Your task to perform on an android device: turn off notifications in google photos Image 0: 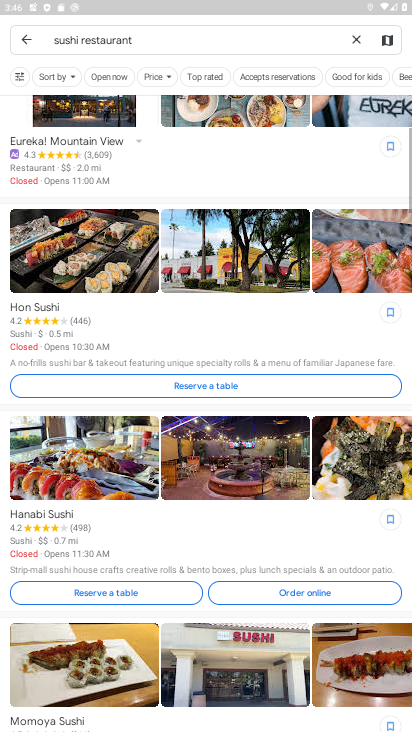
Step 0: drag from (197, 19) to (232, 497)
Your task to perform on an android device: turn off notifications in google photos Image 1: 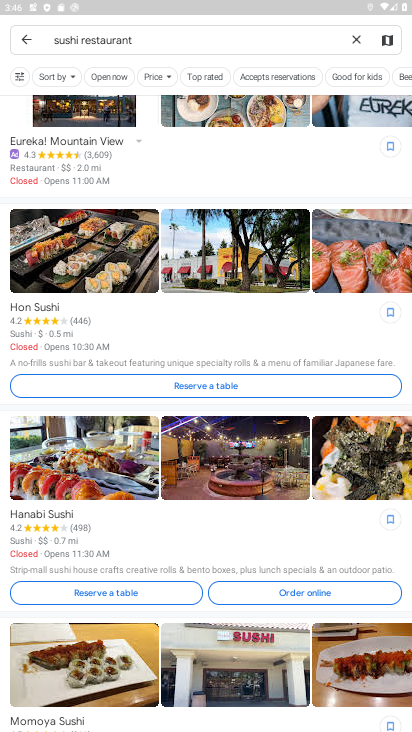
Step 1: press back button
Your task to perform on an android device: turn off notifications in google photos Image 2: 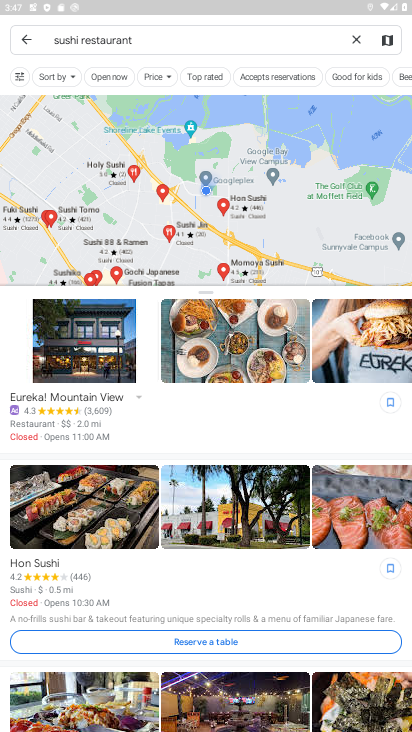
Step 2: press home button
Your task to perform on an android device: turn off notifications in google photos Image 3: 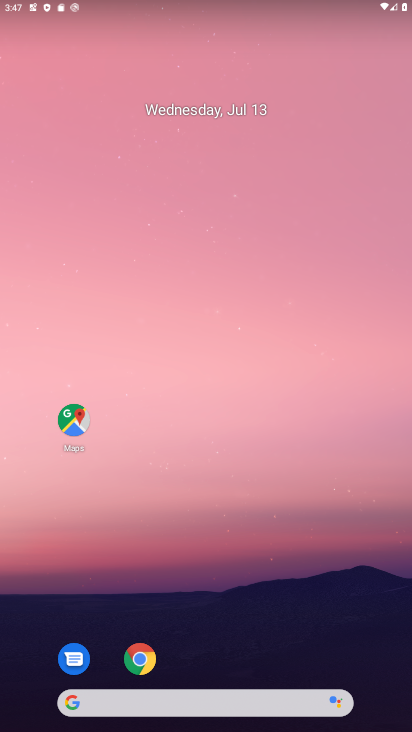
Step 3: drag from (239, 668) to (224, 55)
Your task to perform on an android device: turn off notifications in google photos Image 4: 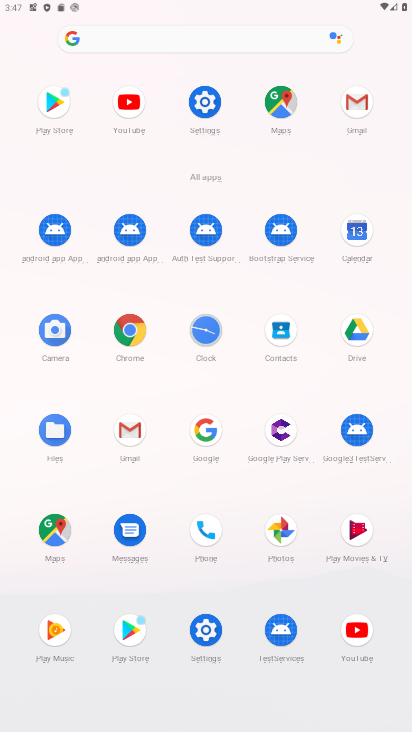
Step 4: click (276, 523)
Your task to perform on an android device: turn off notifications in google photos Image 5: 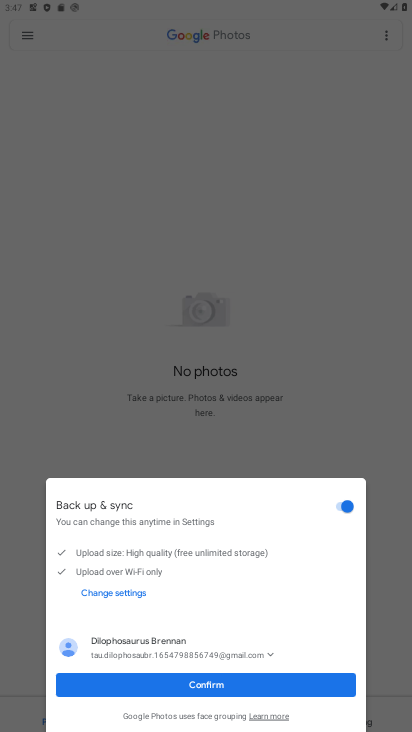
Step 5: click (206, 681)
Your task to perform on an android device: turn off notifications in google photos Image 6: 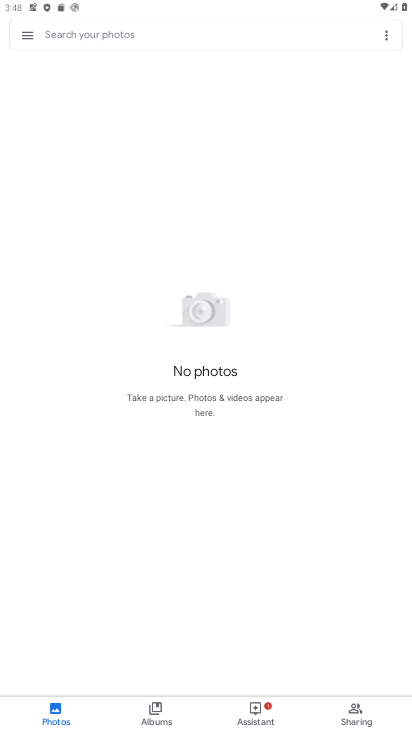
Step 6: click (29, 38)
Your task to perform on an android device: turn off notifications in google photos Image 7: 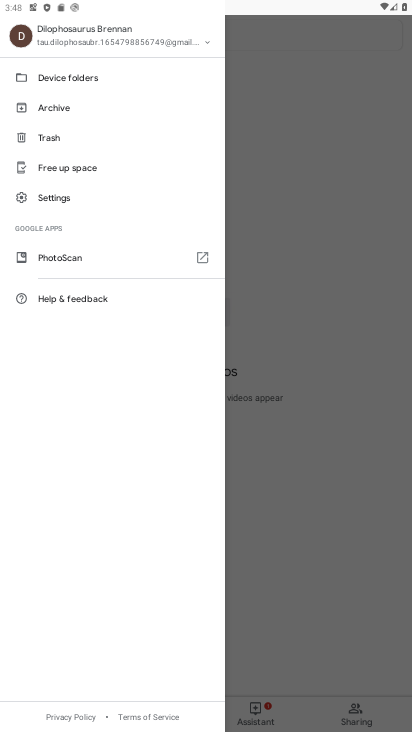
Step 7: click (65, 198)
Your task to perform on an android device: turn off notifications in google photos Image 8: 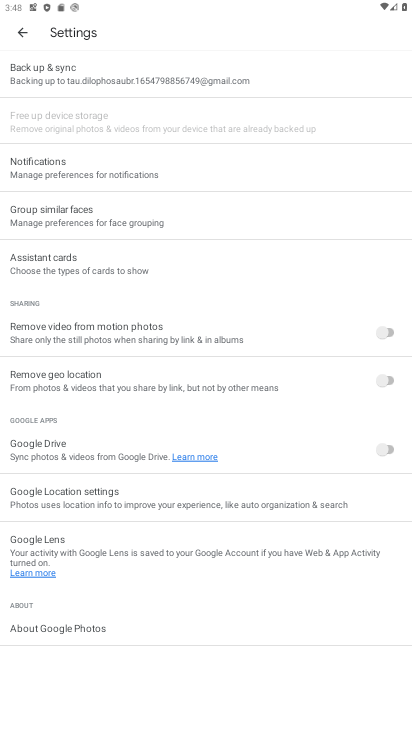
Step 8: click (63, 165)
Your task to perform on an android device: turn off notifications in google photos Image 9: 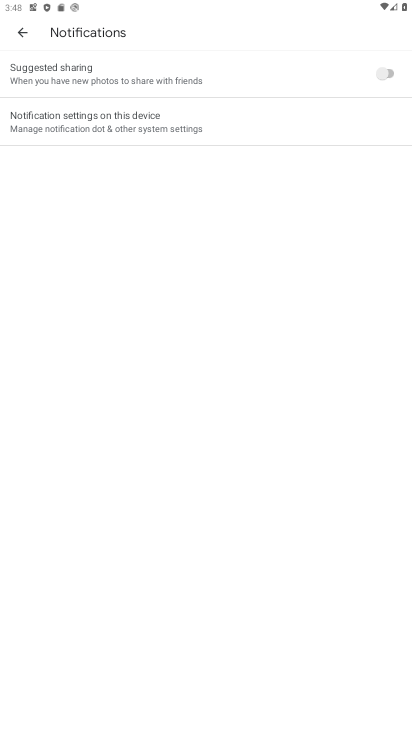
Step 9: click (370, 74)
Your task to perform on an android device: turn off notifications in google photos Image 10: 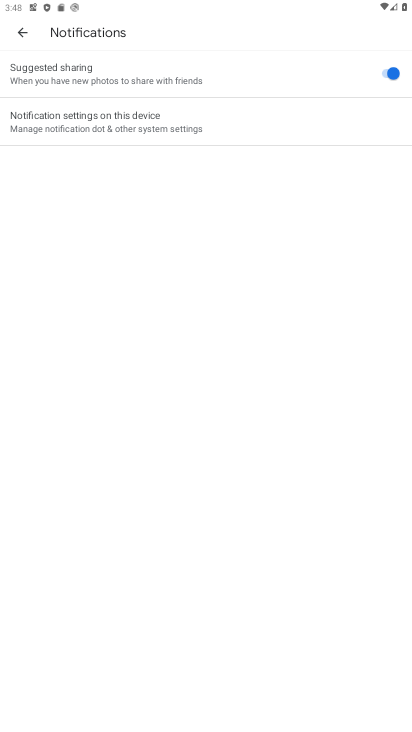
Step 10: click (377, 115)
Your task to perform on an android device: turn off notifications in google photos Image 11: 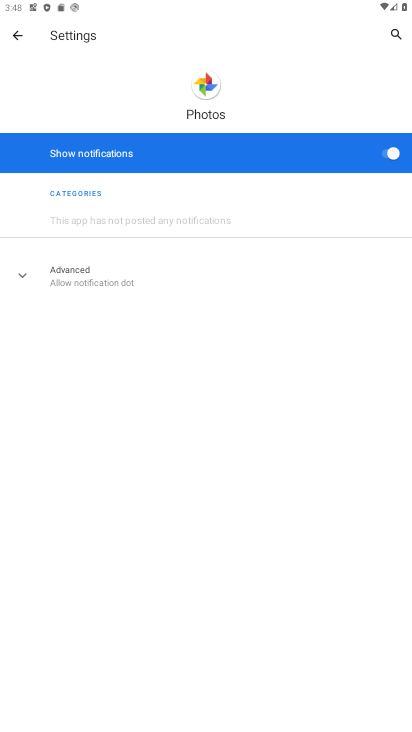
Step 11: click (375, 155)
Your task to perform on an android device: turn off notifications in google photos Image 12: 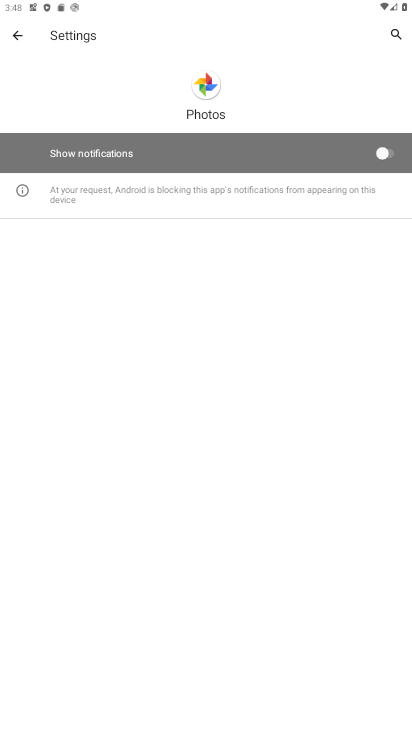
Step 12: task complete